Your task to perform on an android device: Show me some nice wallpapers for my laptop Image 0: 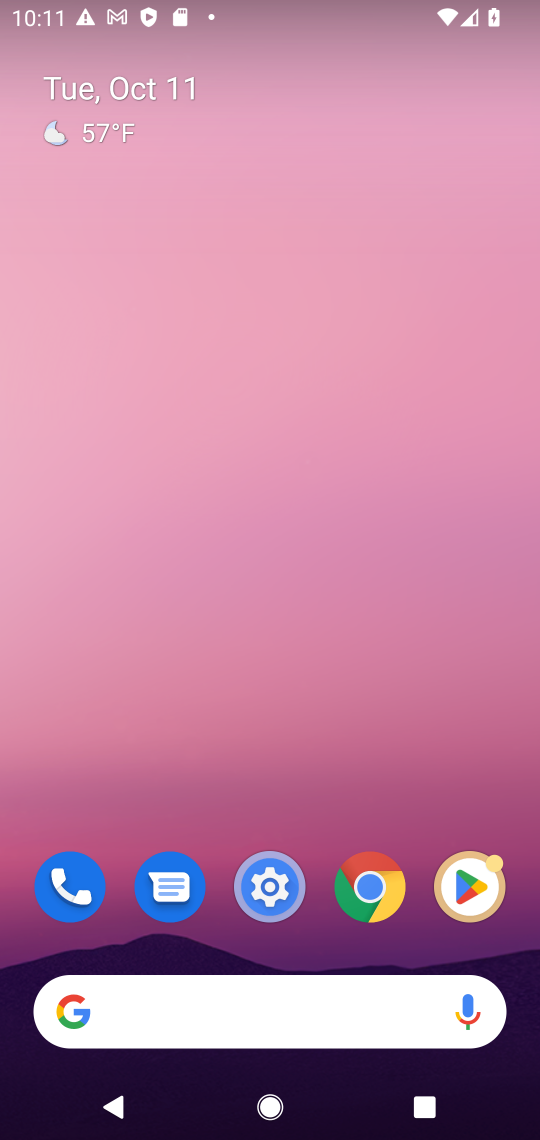
Step 0: click (209, 1010)
Your task to perform on an android device: Show me some nice wallpapers for my laptop Image 1: 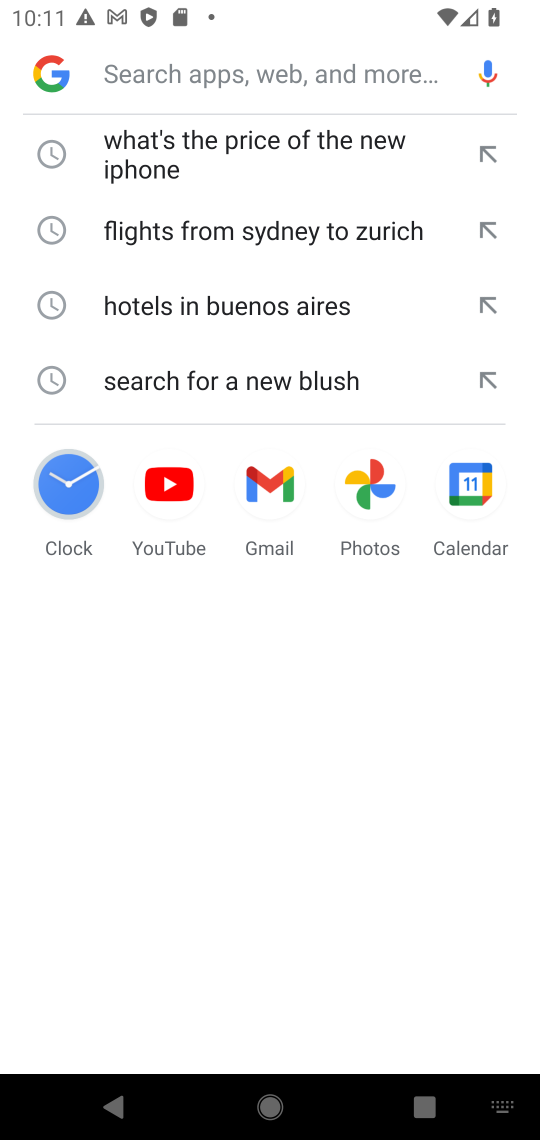
Step 1: type "Show me some nice wallpapers for my laptop"
Your task to perform on an android device: Show me some nice wallpapers for my laptop Image 2: 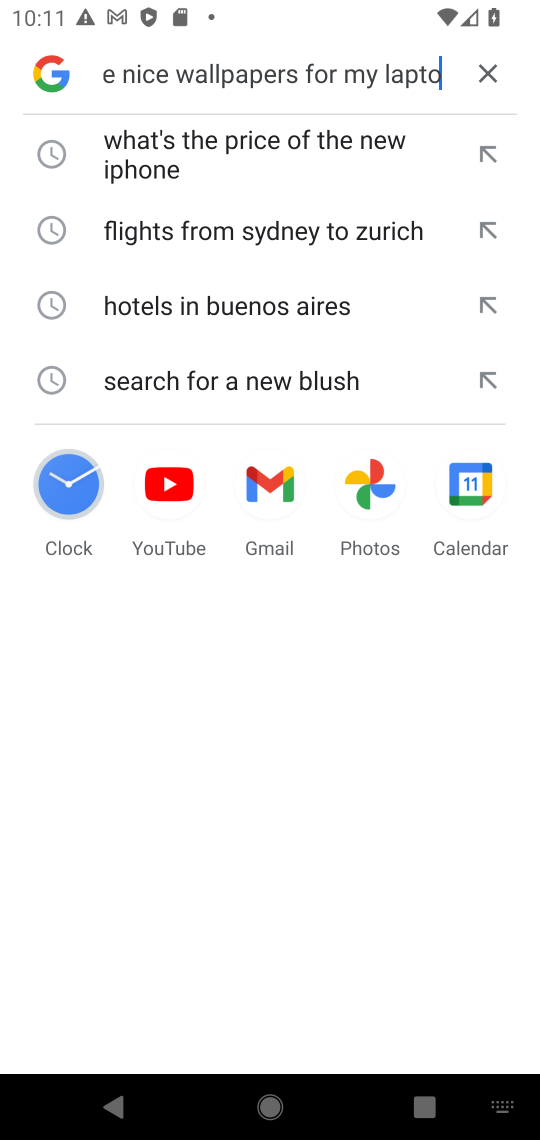
Step 2: press enter
Your task to perform on an android device: Show me some nice wallpapers for my laptop Image 3: 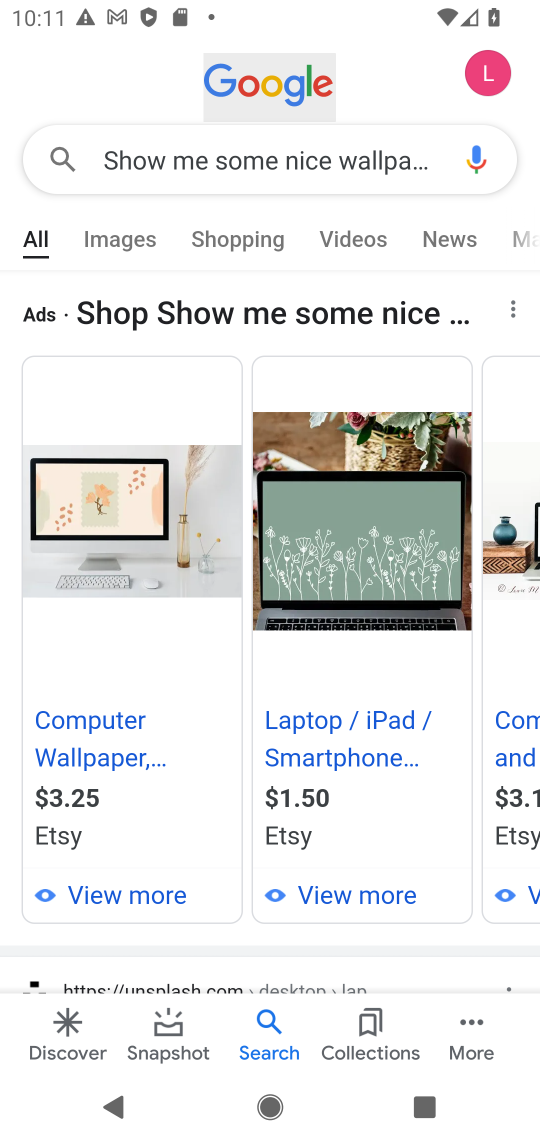
Step 3: drag from (233, 893) to (239, 546)
Your task to perform on an android device: Show me some nice wallpapers for my laptop Image 4: 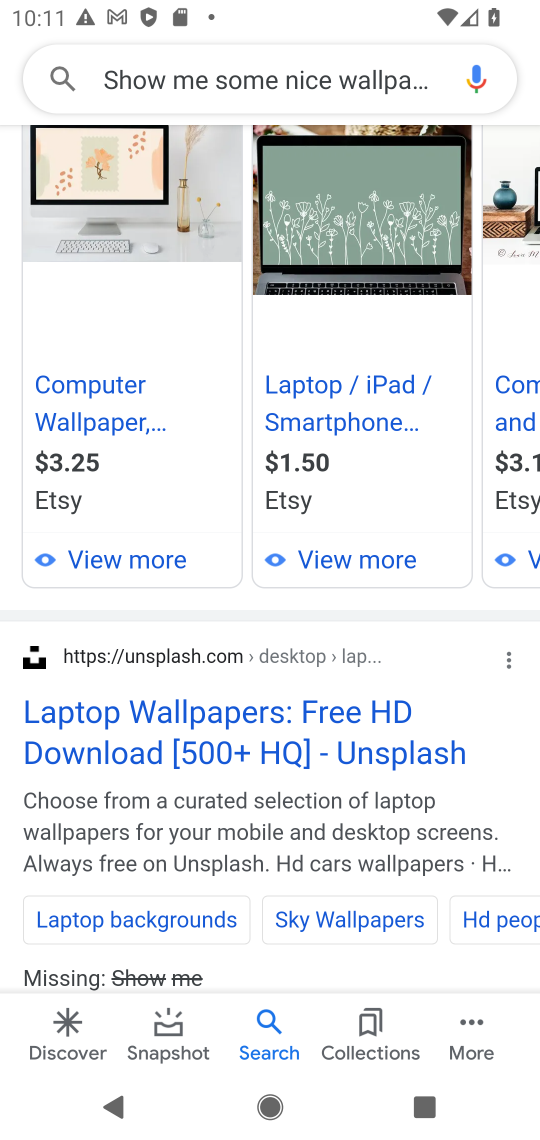
Step 4: drag from (273, 819) to (293, 660)
Your task to perform on an android device: Show me some nice wallpapers for my laptop Image 5: 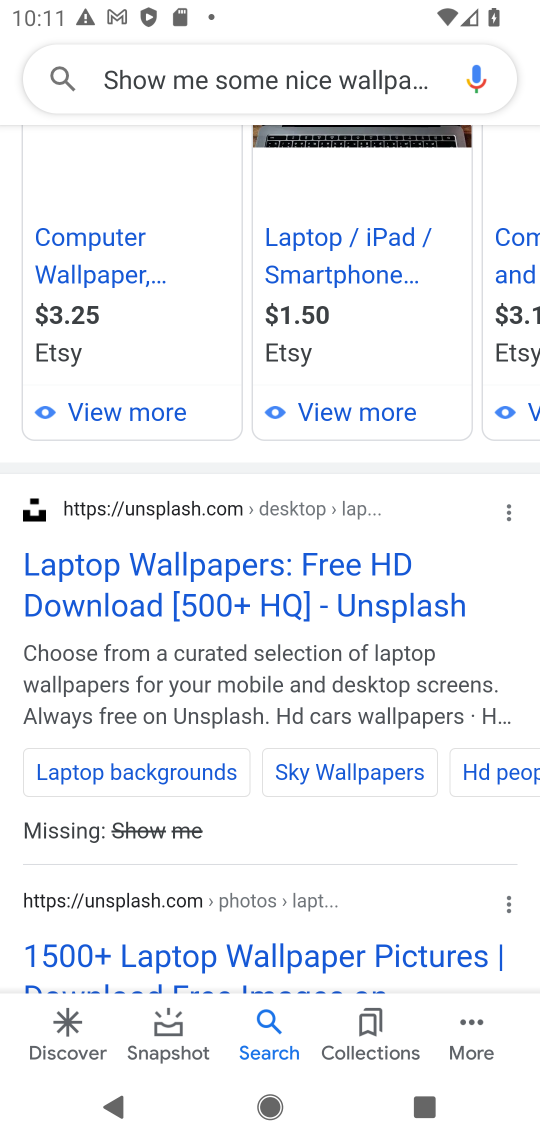
Step 5: click (243, 587)
Your task to perform on an android device: Show me some nice wallpapers for my laptop Image 6: 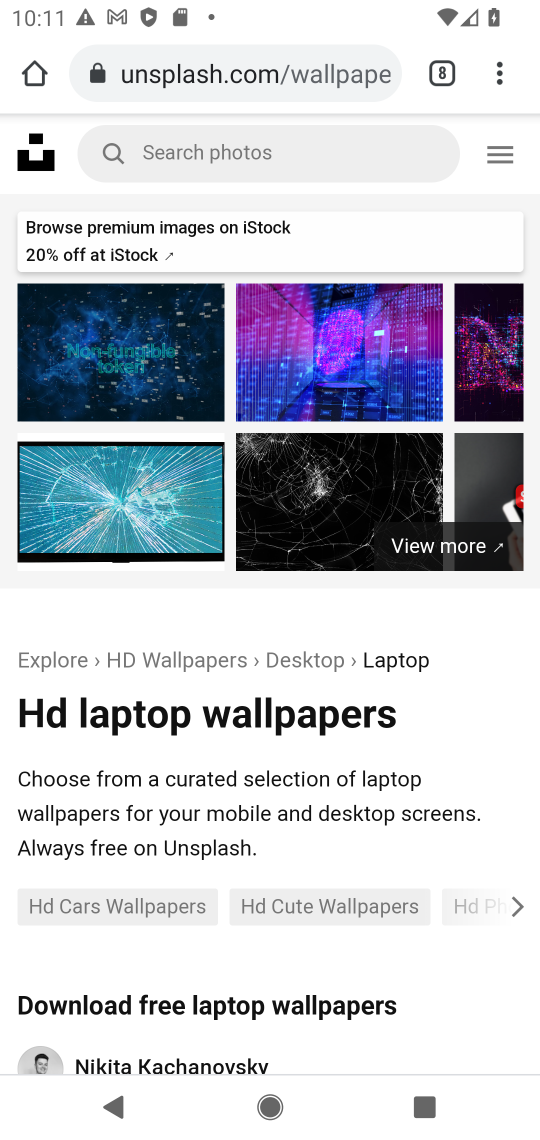
Step 6: task complete